Your task to perform on an android device: What's the weather like in Chicago? Image 0: 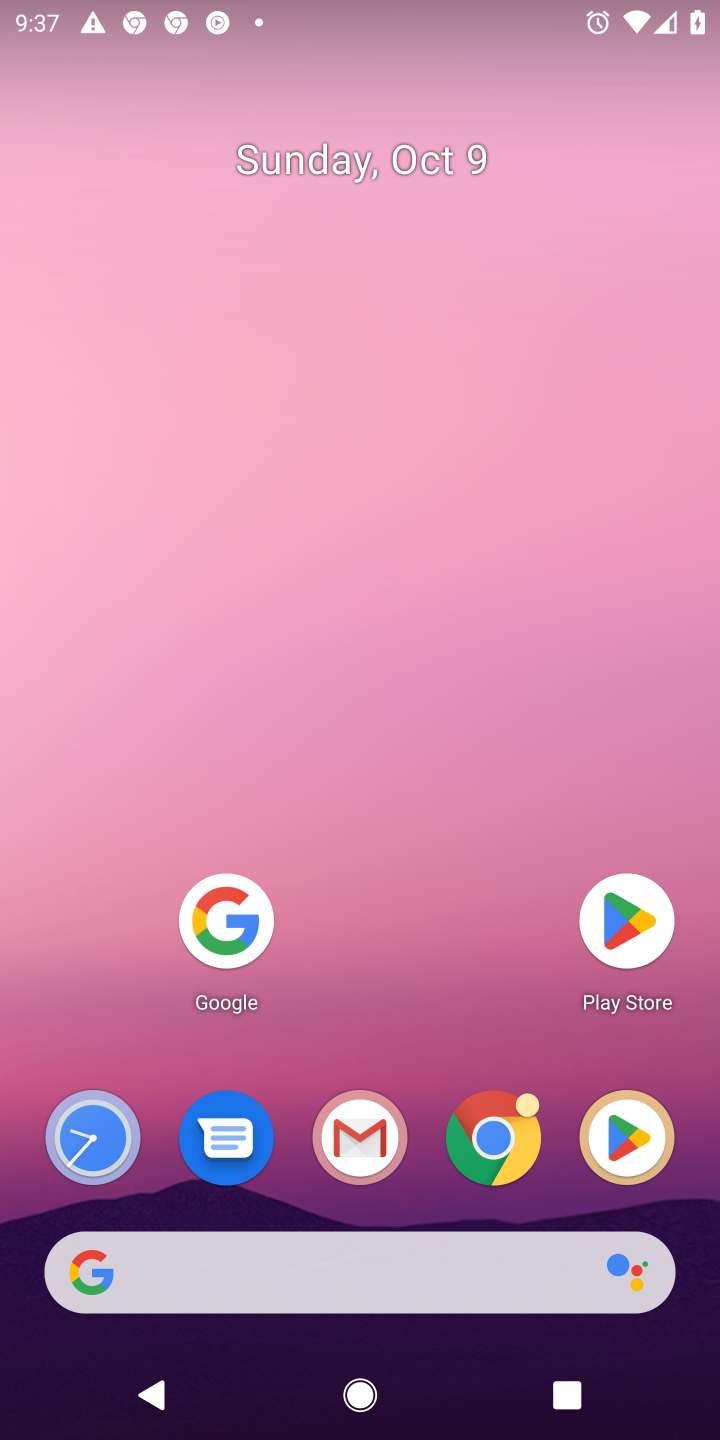
Step 0: click (214, 907)
Your task to perform on an android device: What's the weather like in Chicago? Image 1: 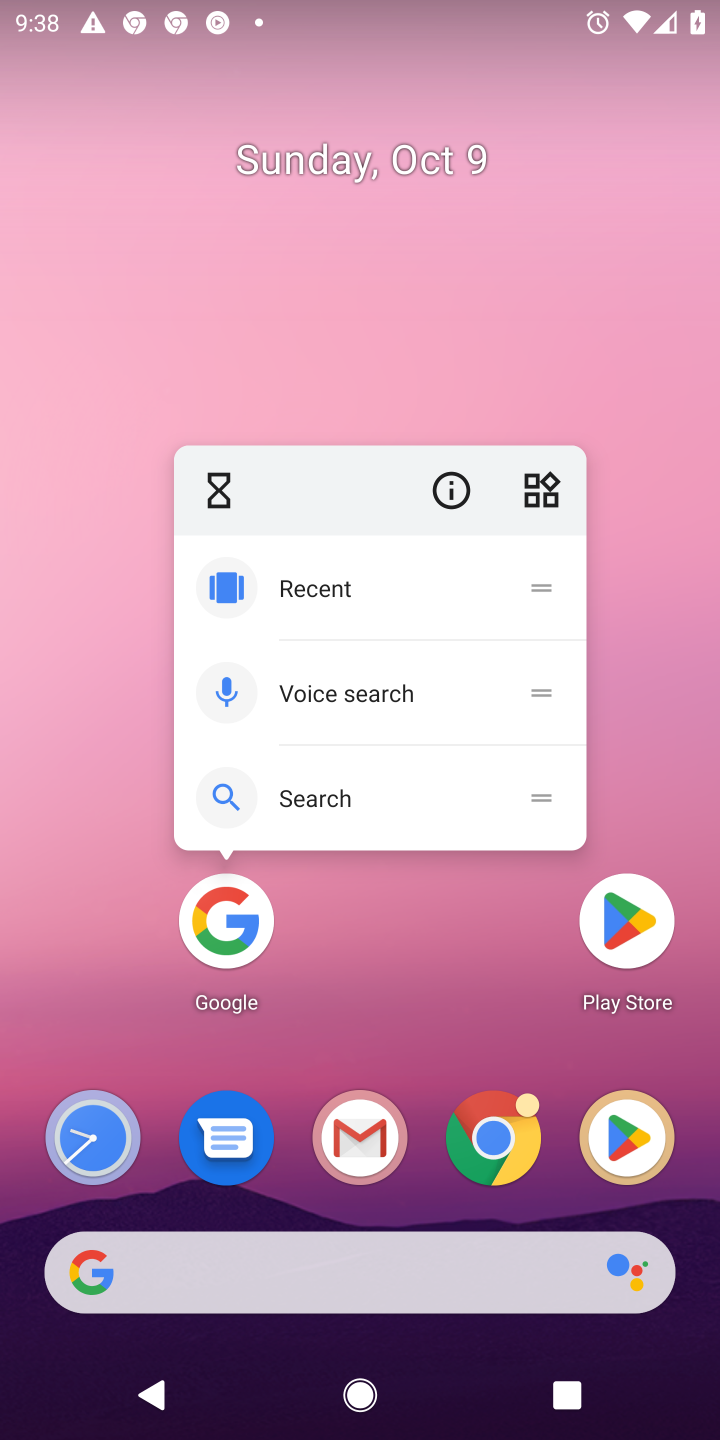
Step 1: click (214, 907)
Your task to perform on an android device: What's the weather like in Chicago? Image 2: 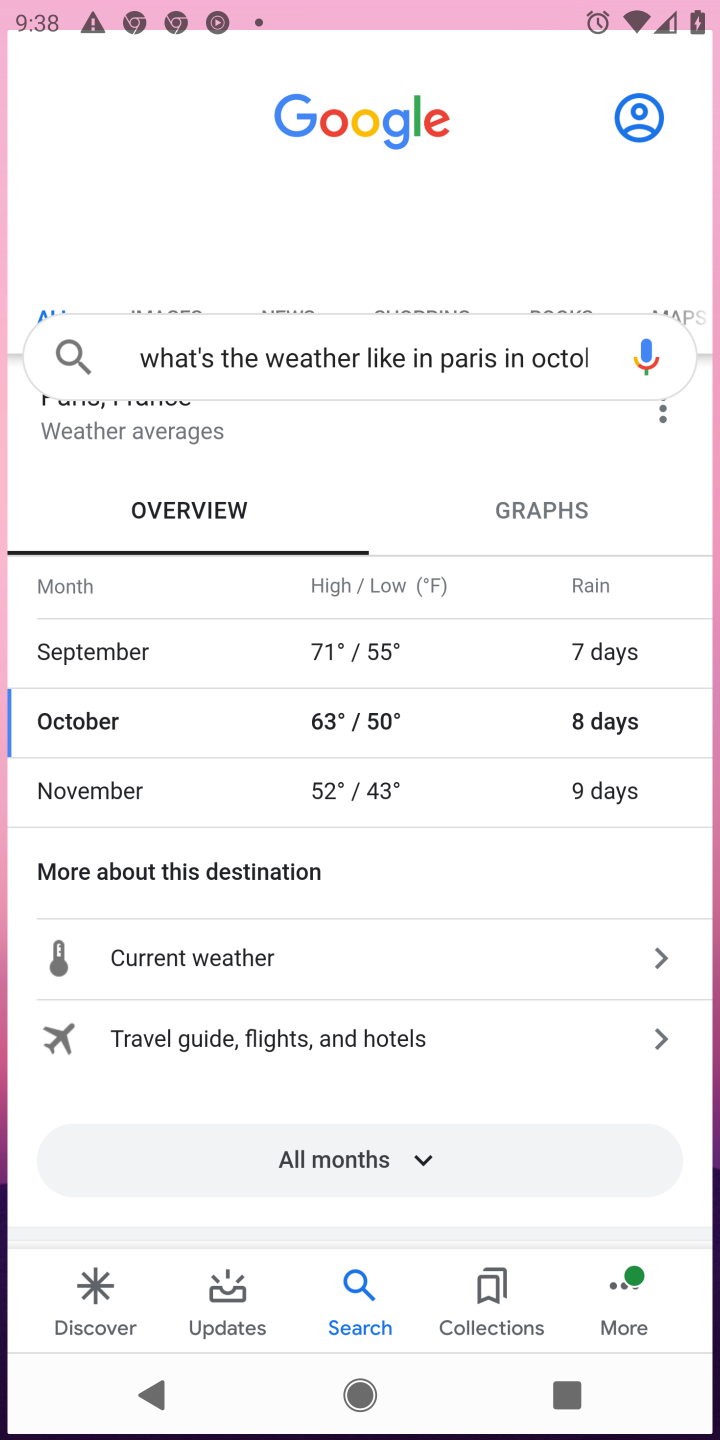
Step 2: click (214, 907)
Your task to perform on an android device: What's the weather like in Chicago? Image 3: 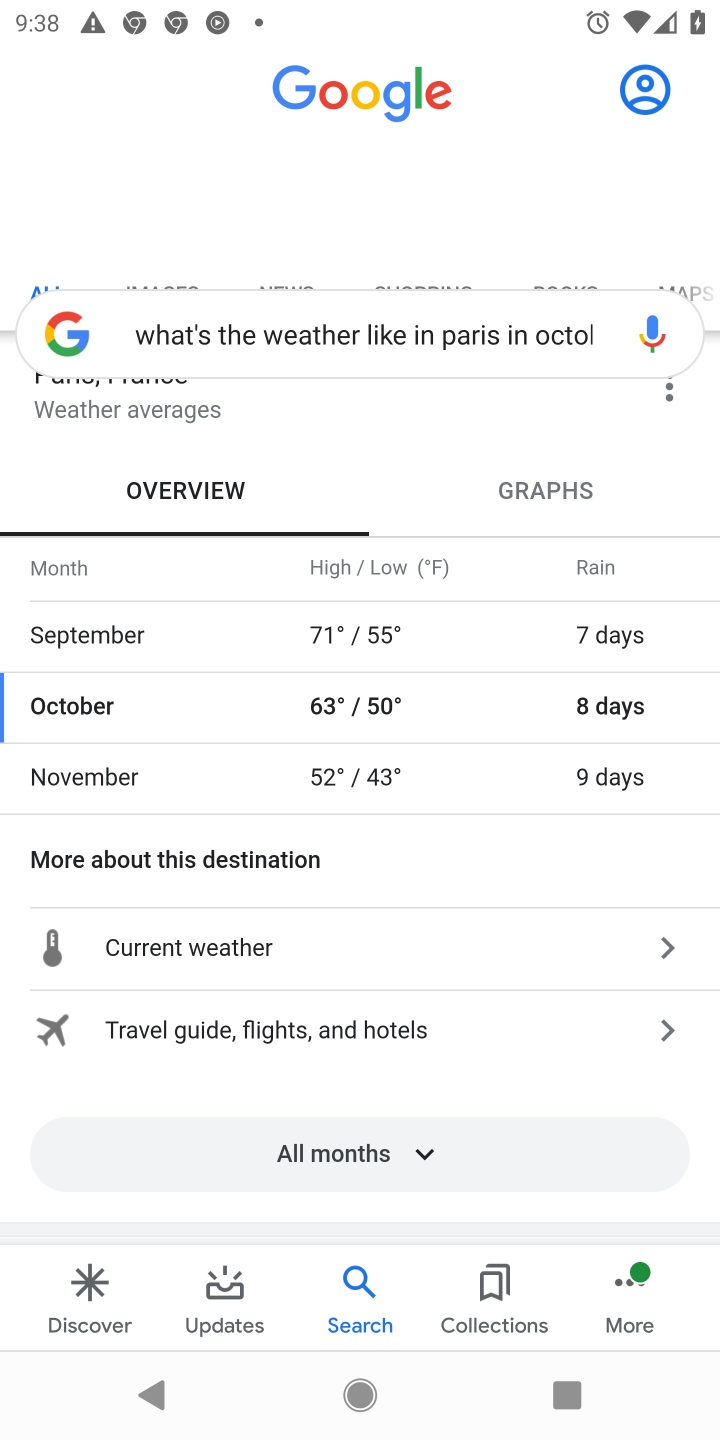
Step 3: click (392, 322)
Your task to perform on an android device: What's the weather like in Chicago? Image 4: 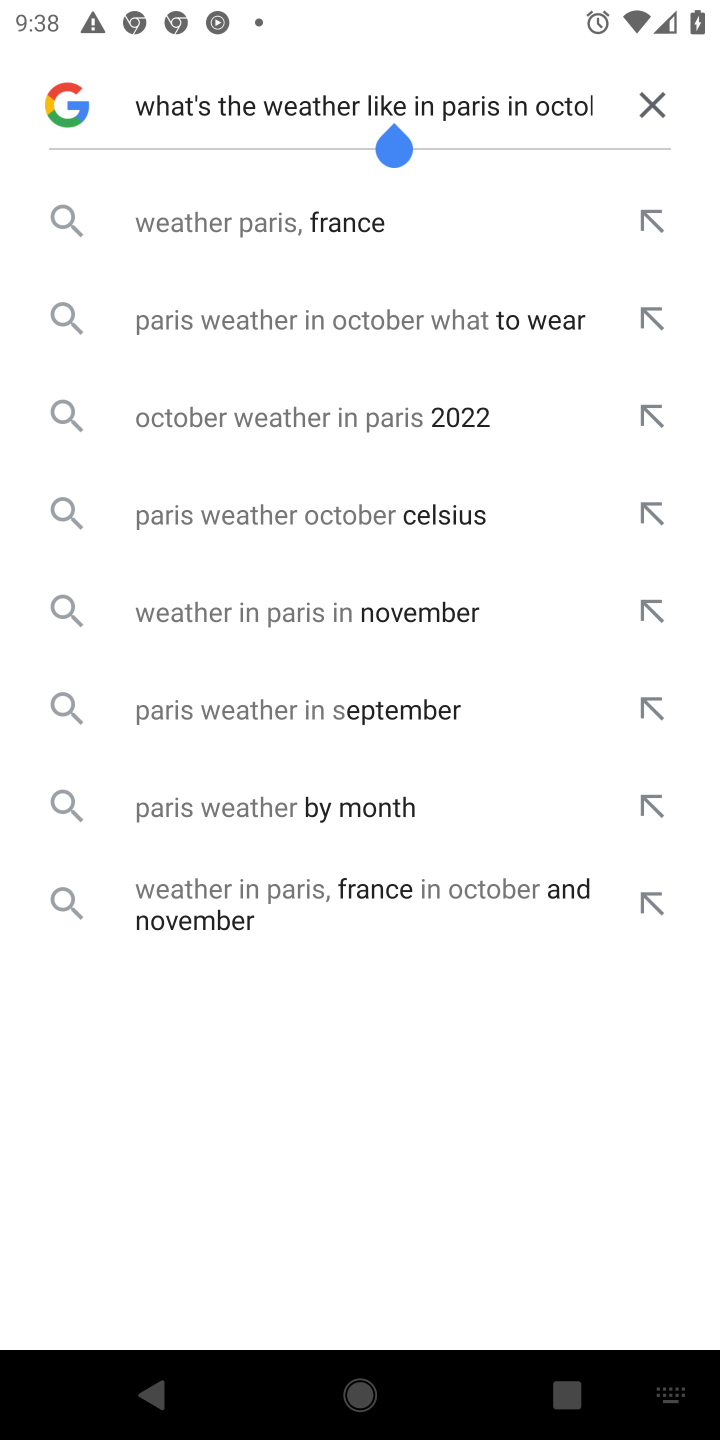
Step 4: click (657, 110)
Your task to perform on an android device: What's the weather like in Chicago? Image 5: 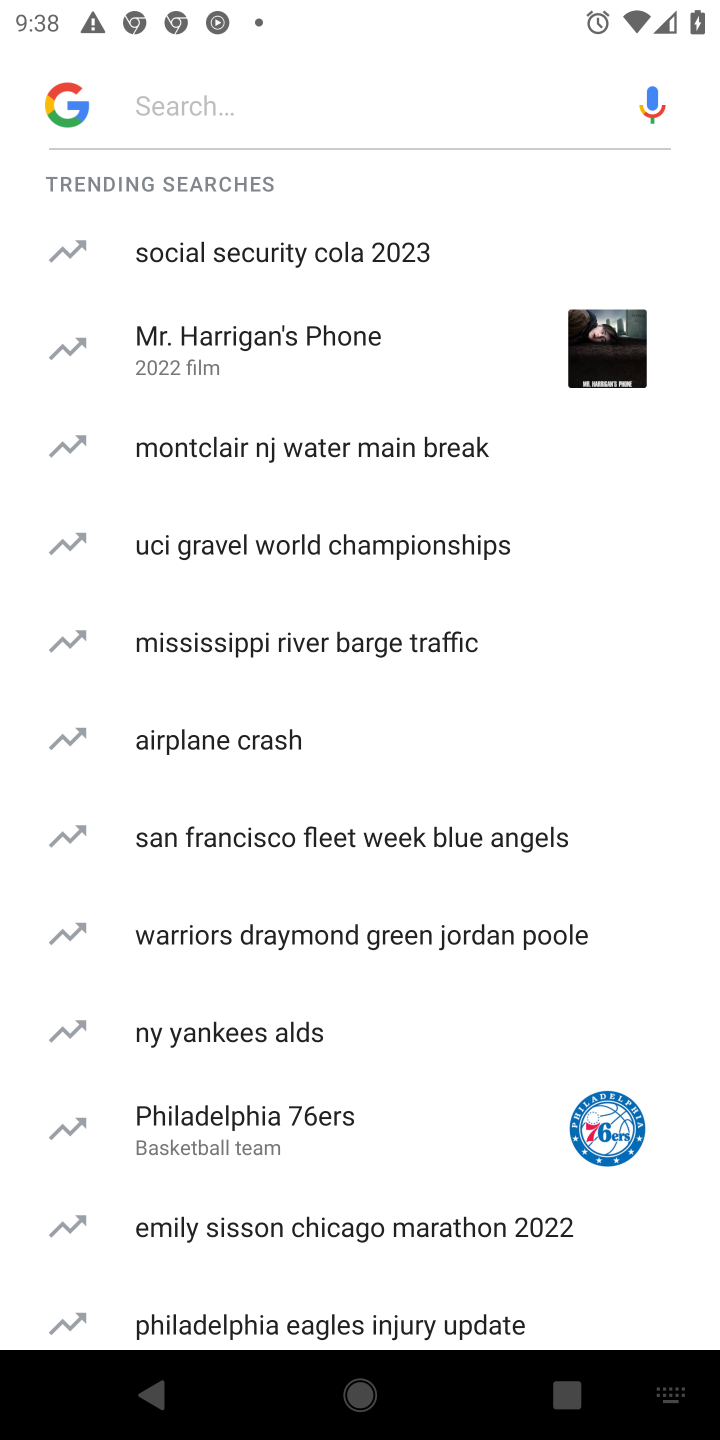
Step 5: click (339, 109)
Your task to perform on an android device: What's the weather like in Chicago? Image 6: 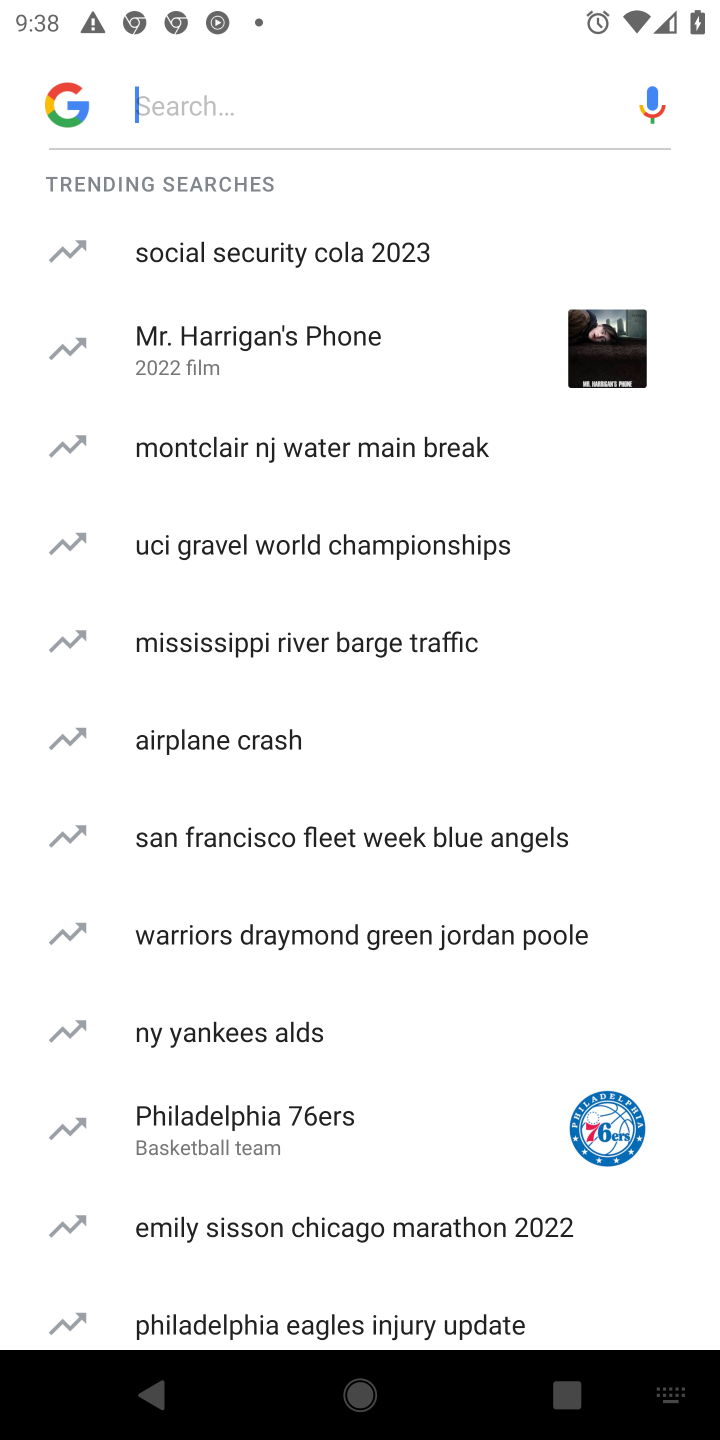
Step 6: type "What's the weather like in Chicago? "
Your task to perform on an android device: What's the weather like in Chicago? Image 7: 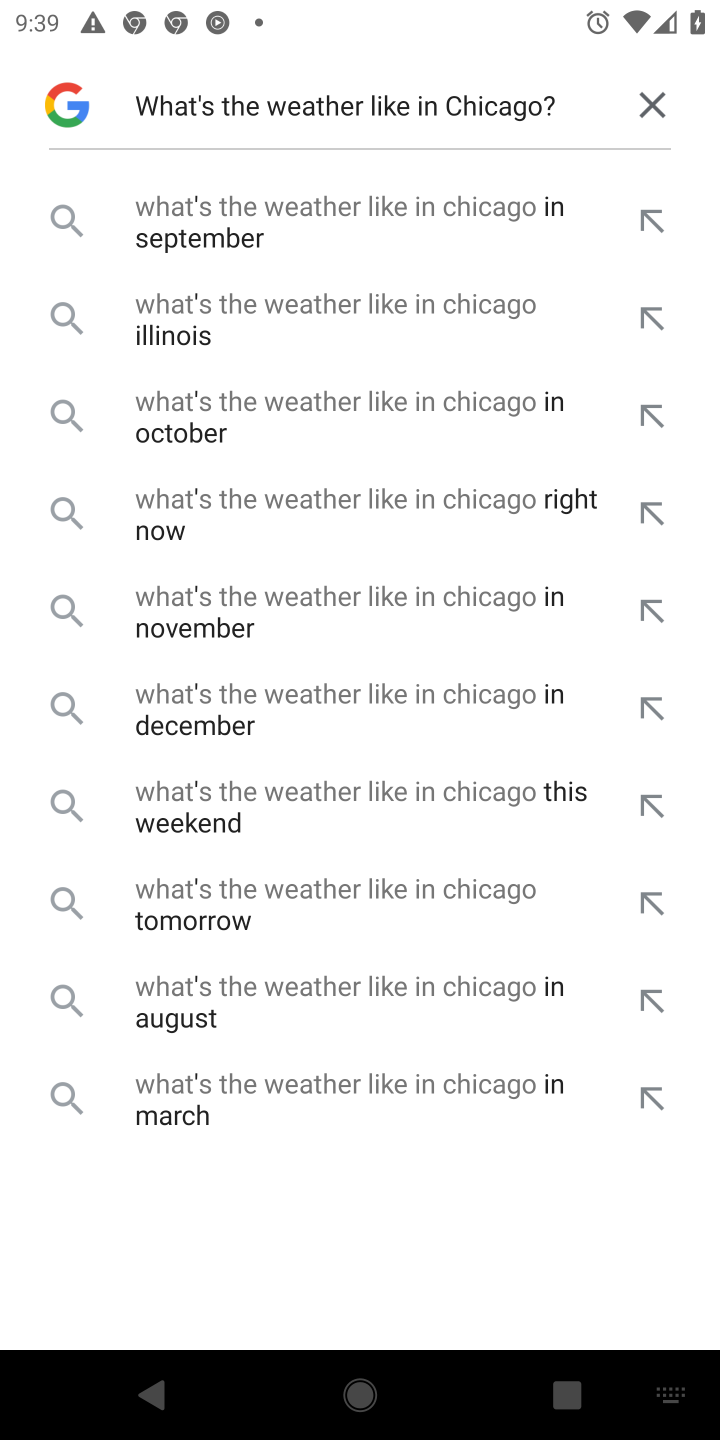
Step 7: click (231, 405)
Your task to perform on an android device: What's the weather like in Chicago? Image 8: 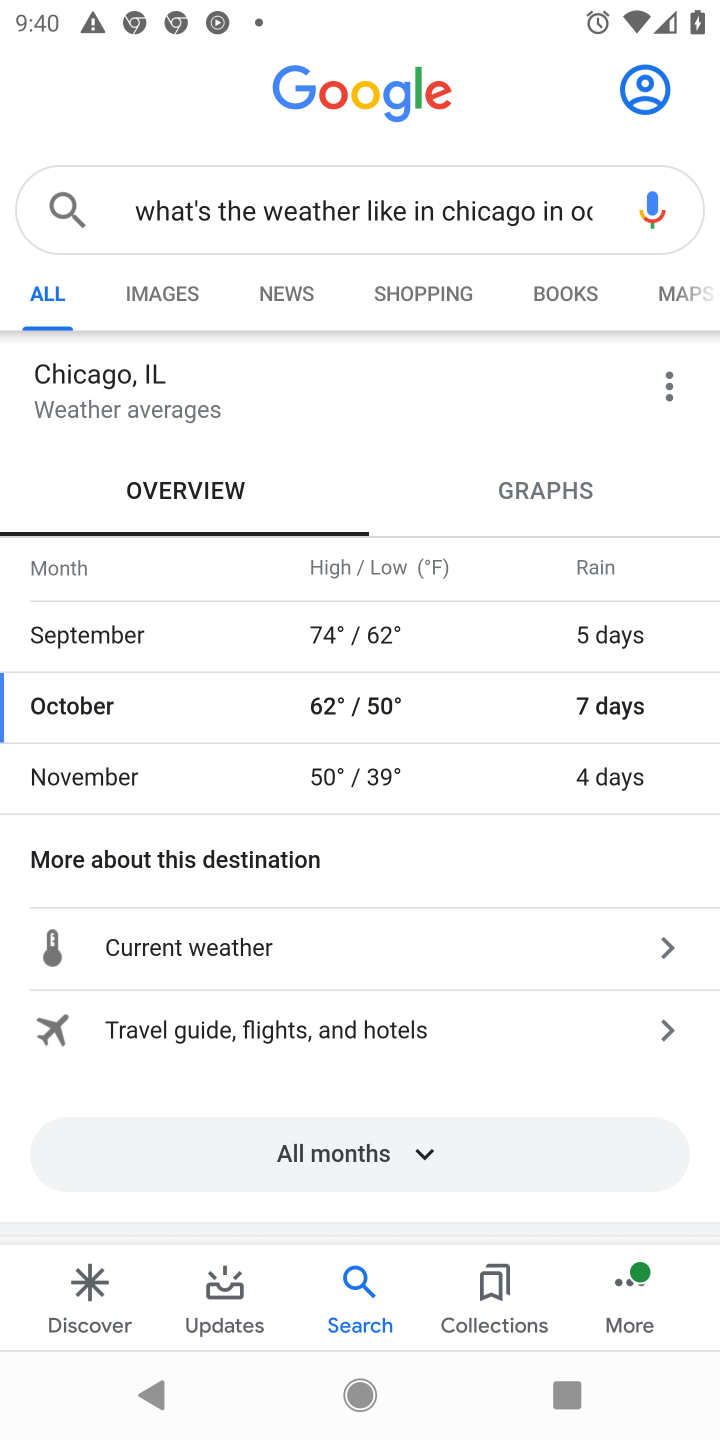
Step 8: task complete